Your task to perform on an android device: turn on sleep mode Image 0: 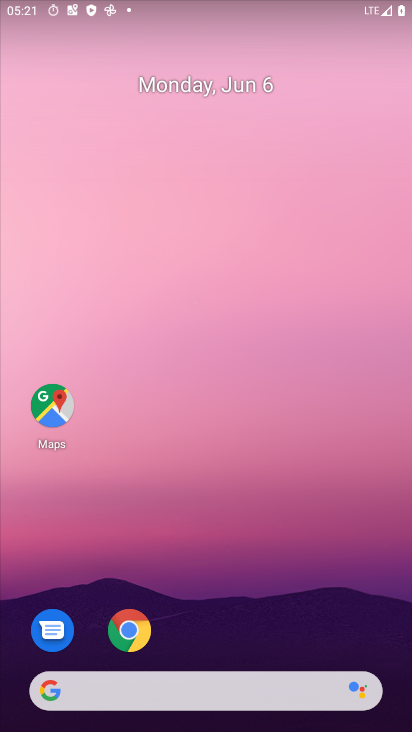
Step 0: drag from (260, 608) to (273, 51)
Your task to perform on an android device: turn on sleep mode Image 1: 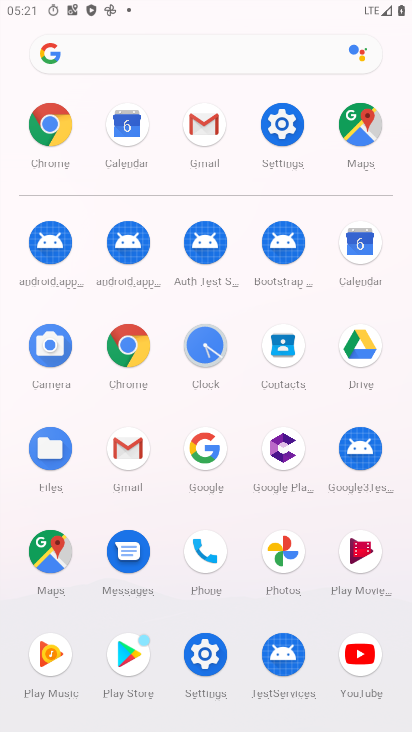
Step 1: click (197, 645)
Your task to perform on an android device: turn on sleep mode Image 2: 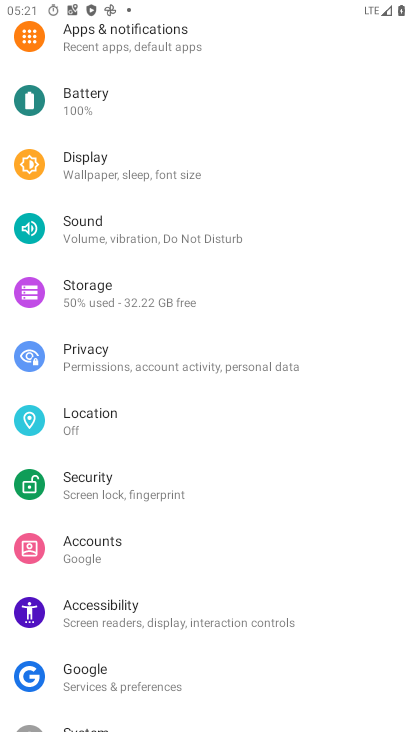
Step 2: click (88, 158)
Your task to perform on an android device: turn on sleep mode Image 3: 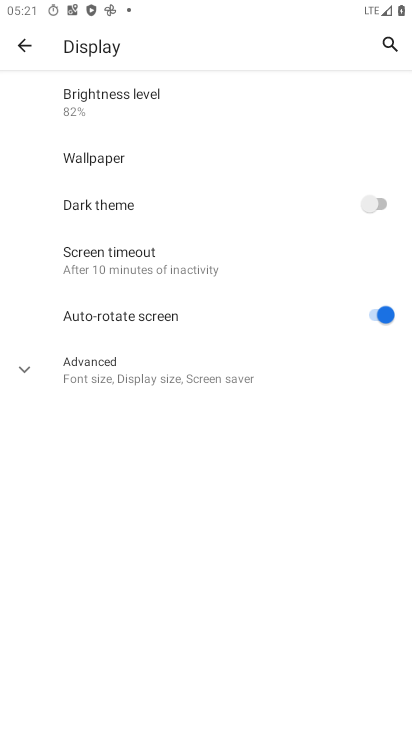
Step 3: task complete